Your task to perform on an android device: turn on data saver in the chrome app Image 0: 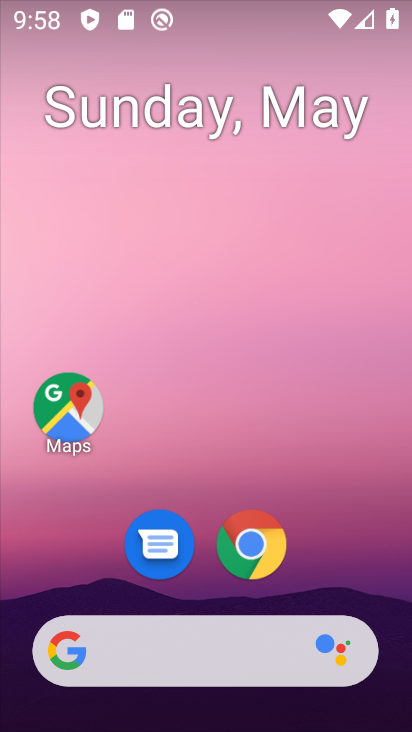
Step 0: click (231, 556)
Your task to perform on an android device: turn on data saver in the chrome app Image 1: 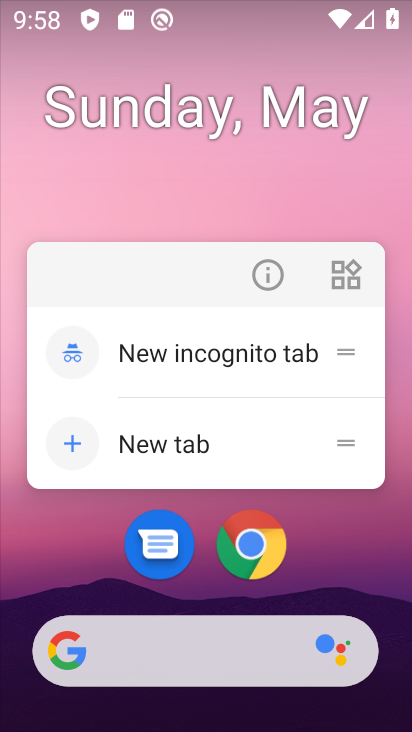
Step 1: click (232, 559)
Your task to perform on an android device: turn on data saver in the chrome app Image 2: 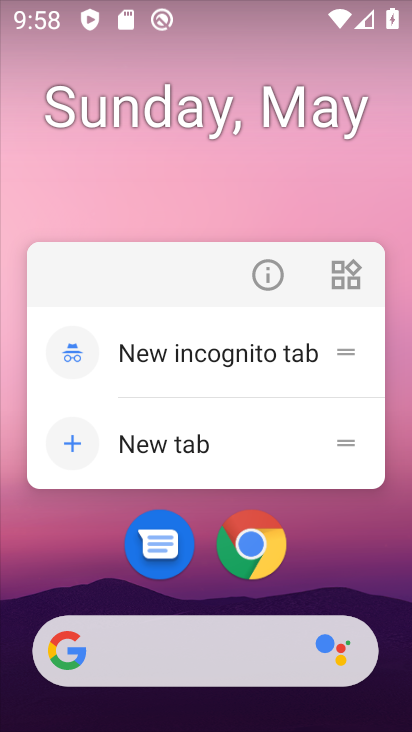
Step 2: click (243, 543)
Your task to perform on an android device: turn on data saver in the chrome app Image 3: 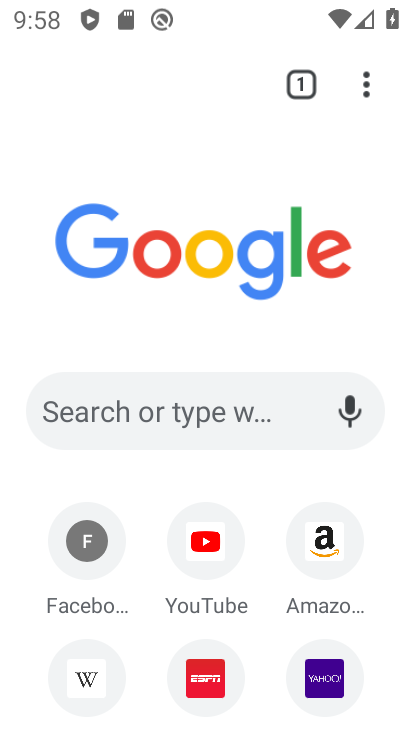
Step 3: click (377, 85)
Your task to perform on an android device: turn on data saver in the chrome app Image 4: 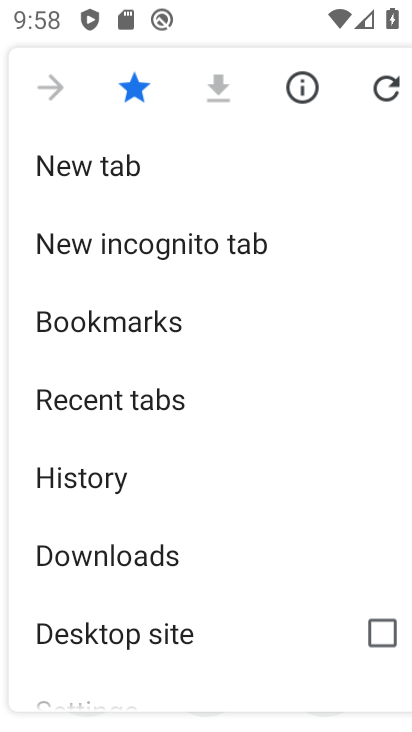
Step 4: drag from (160, 632) to (215, 196)
Your task to perform on an android device: turn on data saver in the chrome app Image 5: 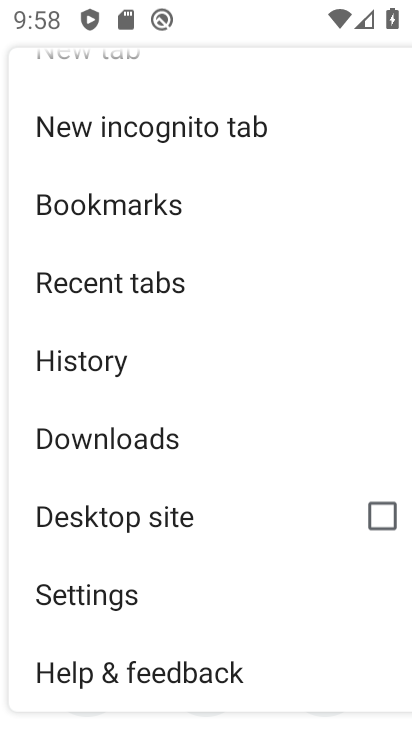
Step 5: click (98, 582)
Your task to perform on an android device: turn on data saver in the chrome app Image 6: 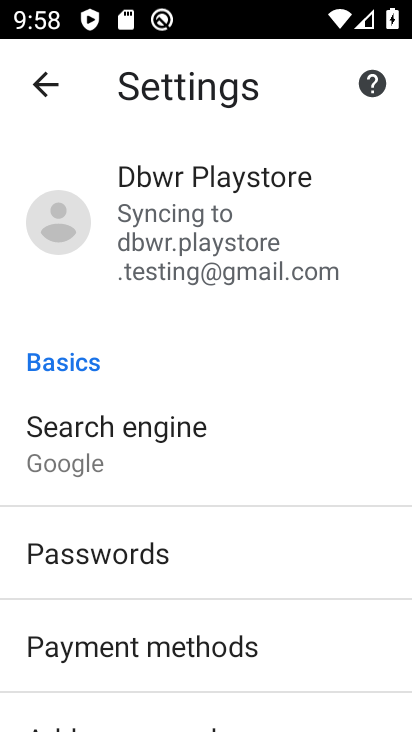
Step 6: drag from (130, 564) to (196, 183)
Your task to perform on an android device: turn on data saver in the chrome app Image 7: 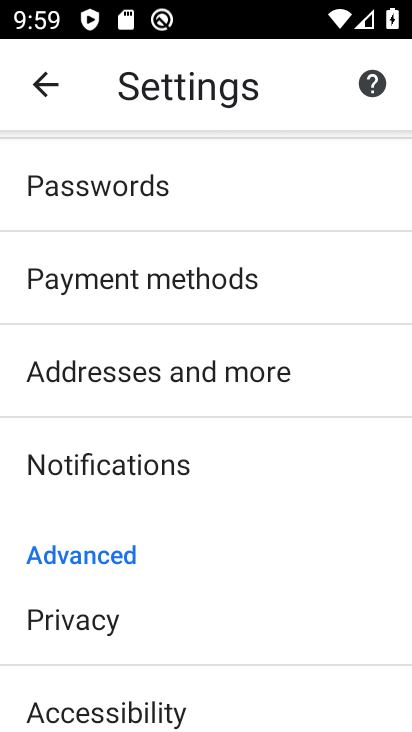
Step 7: drag from (126, 620) to (201, 213)
Your task to perform on an android device: turn on data saver in the chrome app Image 8: 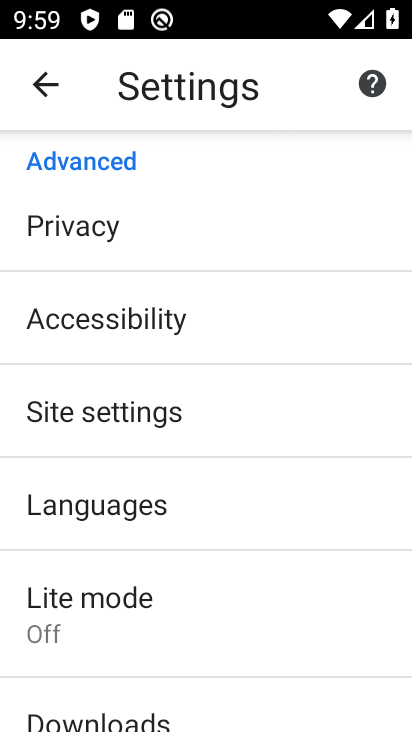
Step 8: click (139, 412)
Your task to perform on an android device: turn on data saver in the chrome app Image 9: 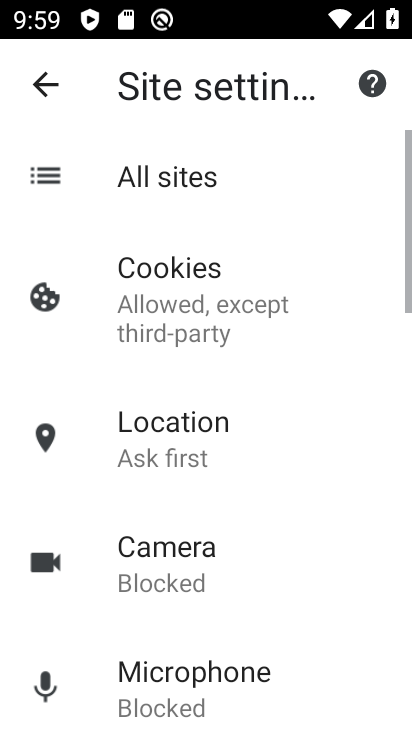
Step 9: click (54, 79)
Your task to perform on an android device: turn on data saver in the chrome app Image 10: 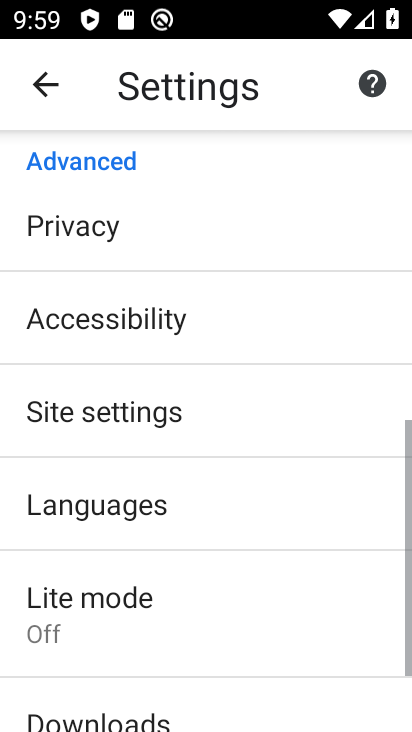
Step 10: click (194, 612)
Your task to perform on an android device: turn on data saver in the chrome app Image 11: 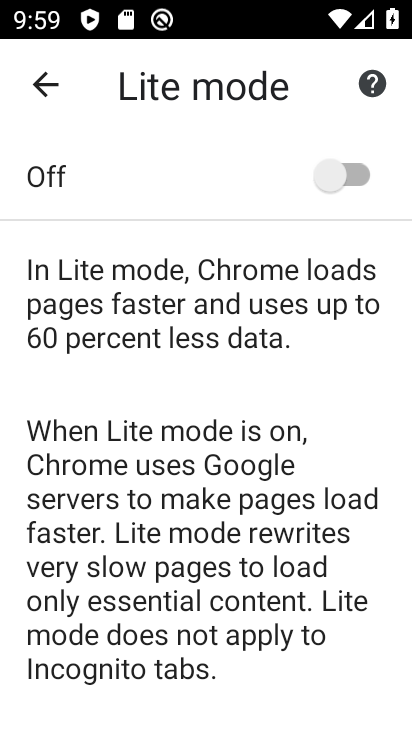
Step 11: click (372, 173)
Your task to perform on an android device: turn on data saver in the chrome app Image 12: 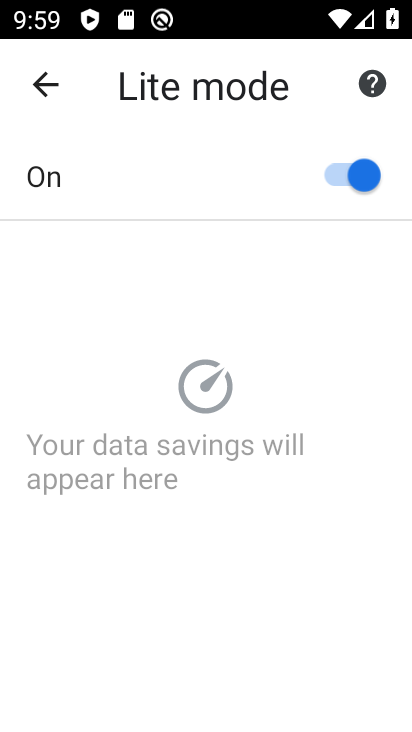
Step 12: task complete